Your task to perform on an android device: Show me productivity apps on the Play Store Image 0: 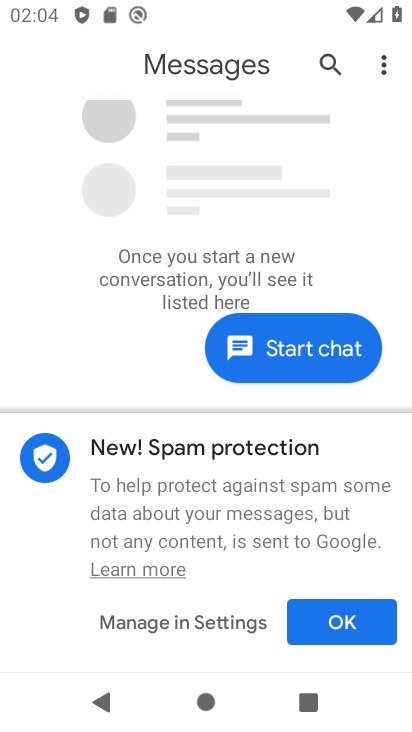
Step 0: press home button
Your task to perform on an android device: Show me productivity apps on the Play Store Image 1: 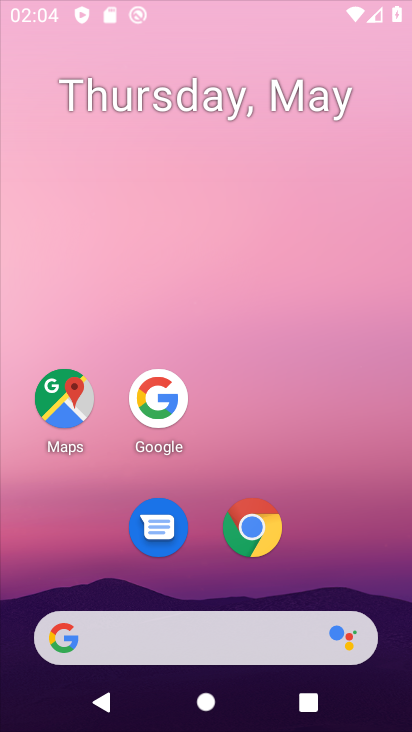
Step 1: drag from (187, 667) to (292, 234)
Your task to perform on an android device: Show me productivity apps on the Play Store Image 2: 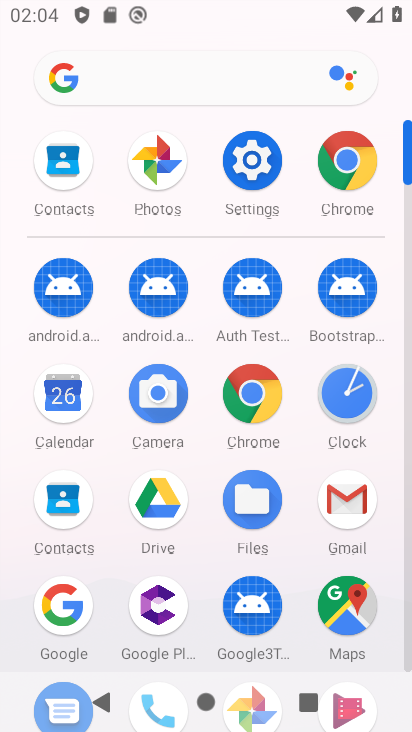
Step 2: drag from (207, 608) to (241, 263)
Your task to perform on an android device: Show me productivity apps on the Play Store Image 3: 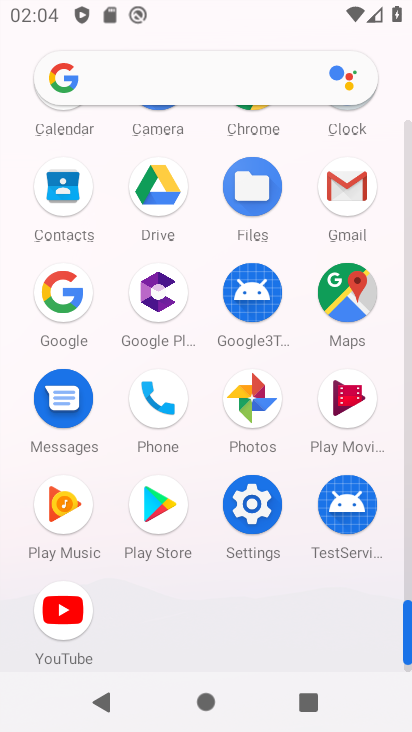
Step 3: click (153, 517)
Your task to perform on an android device: Show me productivity apps on the Play Store Image 4: 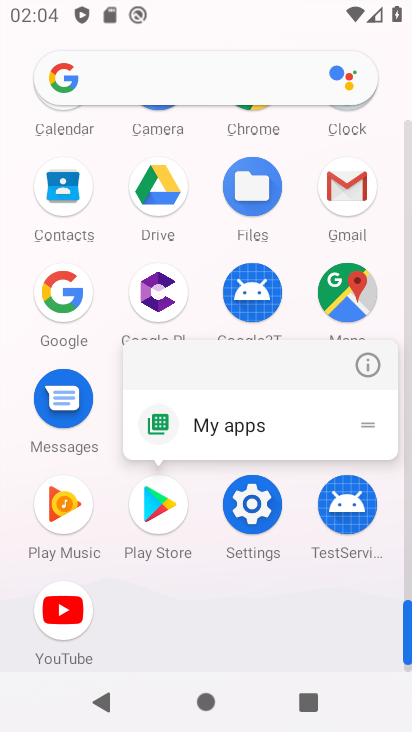
Step 4: click (373, 368)
Your task to perform on an android device: Show me productivity apps on the Play Store Image 5: 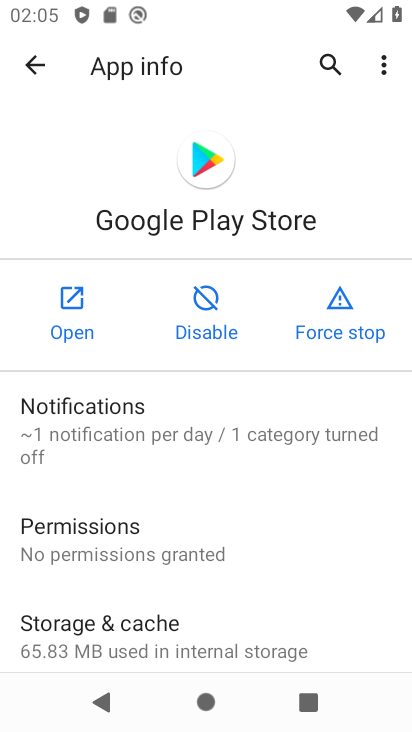
Step 5: click (68, 317)
Your task to perform on an android device: Show me productivity apps on the Play Store Image 6: 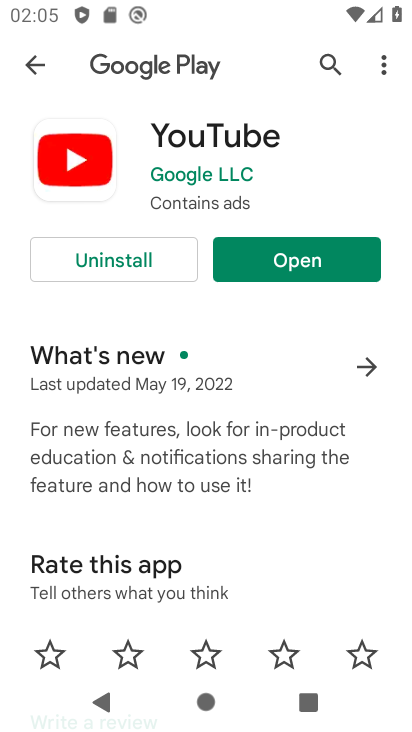
Step 6: press back button
Your task to perform on an android device: Show me productivity apps on the Play Store Image 7: 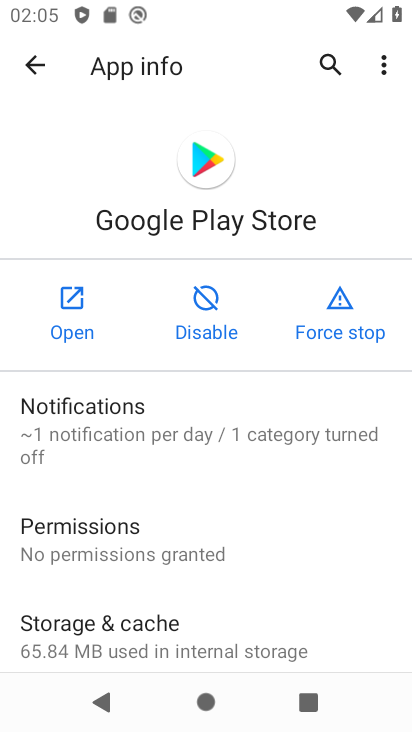
Step 7: click (76, 287)
Your task to perform on an android device: Show me productivity apps on the Play Store Image 8: 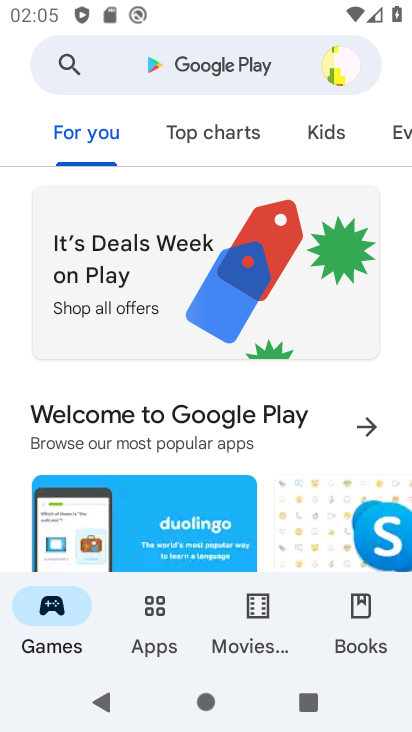
Step 8: task complete